Your task to perform on an android device: refresh tabs in the chrome app Image 0: 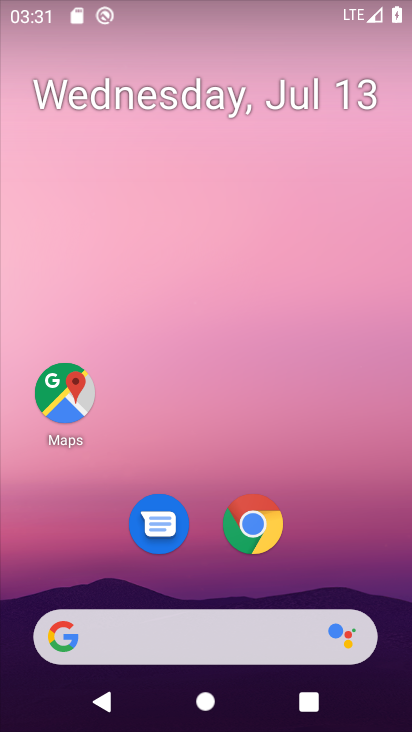
Step 0: click (266, 526)
Your task to perform on an android device: refresh tabs in the chrome app Image 1: 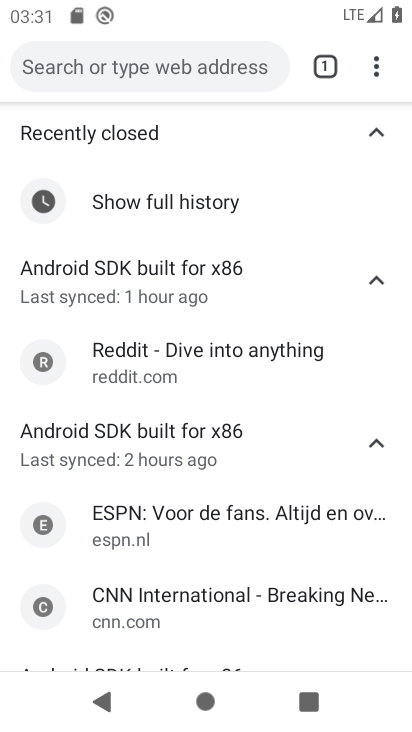
Step 1: click (371, 69)
Your task to perform on an android device: refresh tabs in the chrome app Image 2: 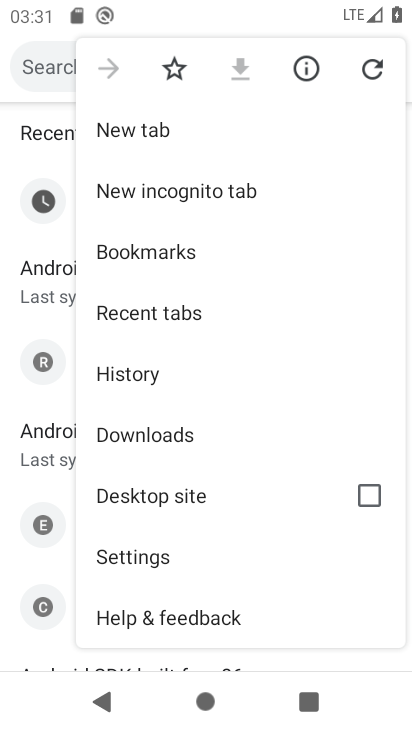
Step 2: click (371, 69)
Your task to perform on an android device: refresh tabs in the chrome app Image 3: 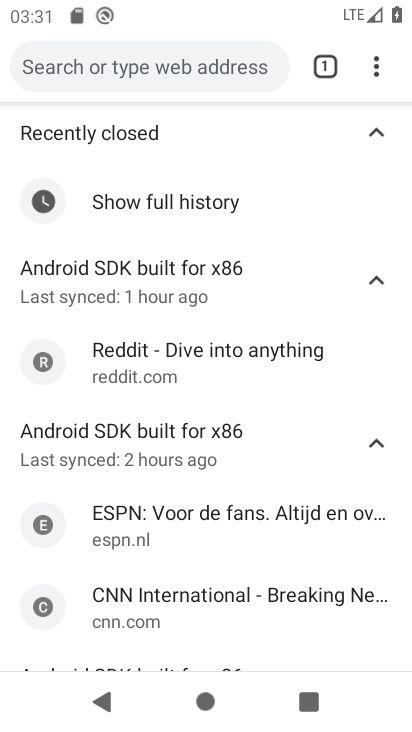
Step 3: task complete